Your task to perform on an android device: toggle priority inbox in the gmail app Image 0: 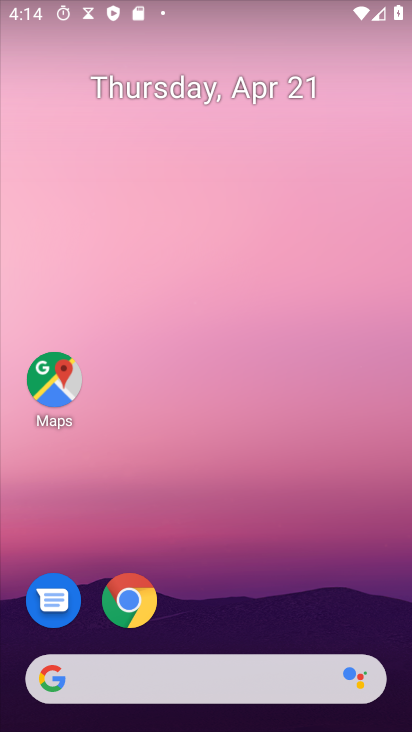
Step 0: drag from (184, 568) to (247, 78)
Your task to perform on an android device: toggle priority inbox in the gmail app Image 1: 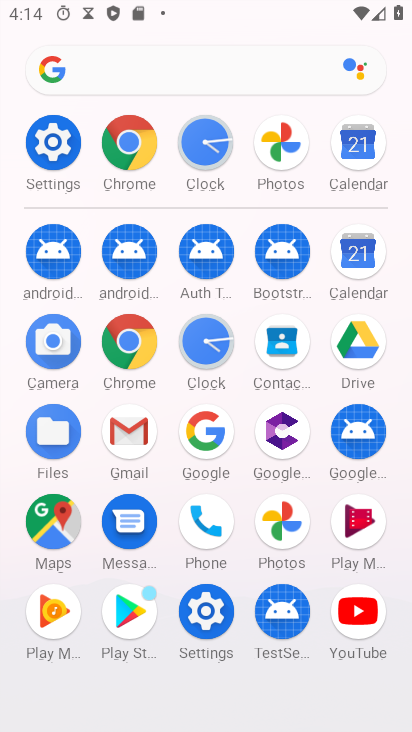
Step 1: click (130, 433)
Your task to perform on an android device: toggle priority inbox in the gmail app Image 2: 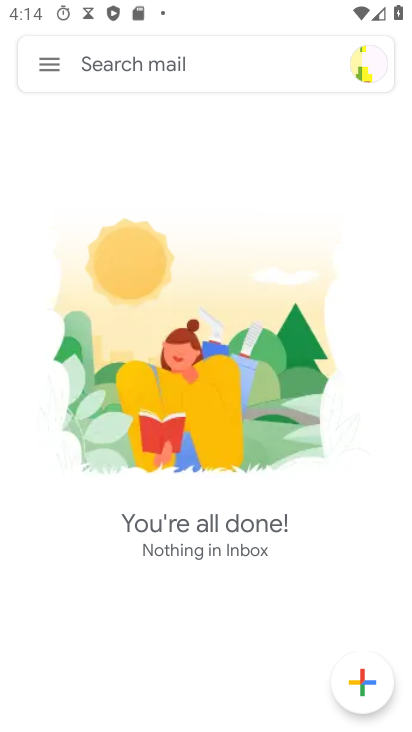
Step 2: click (49, 65)
Your task to perform on an android device: toggle priority inbox in the gmail app Image 3: 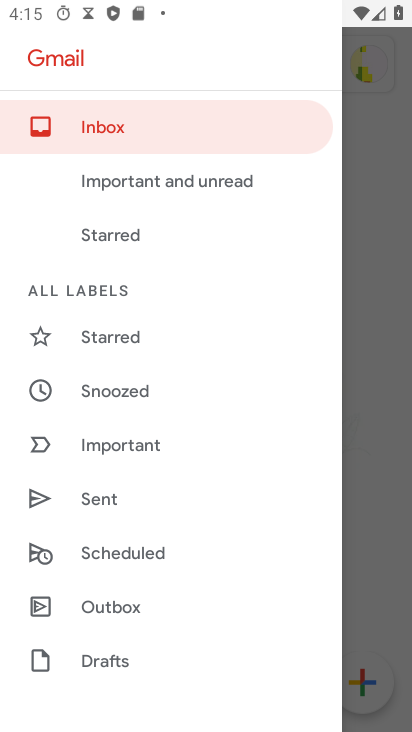
Step 3: drag from (151, 492) to (184, 343)
Your task to perform on an android device: toggle priority inbox in the gmail app Image 4: 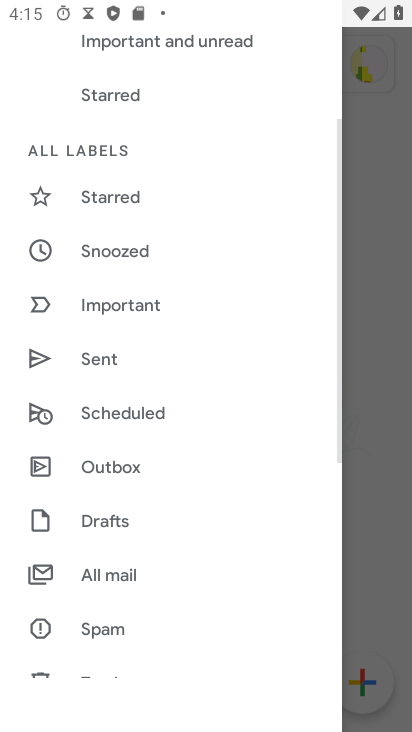
Step 4: drag from (155, 501) to (192, 363)
Your task to perform on an android device: toggle priority inbox in the gmail app Image 5: 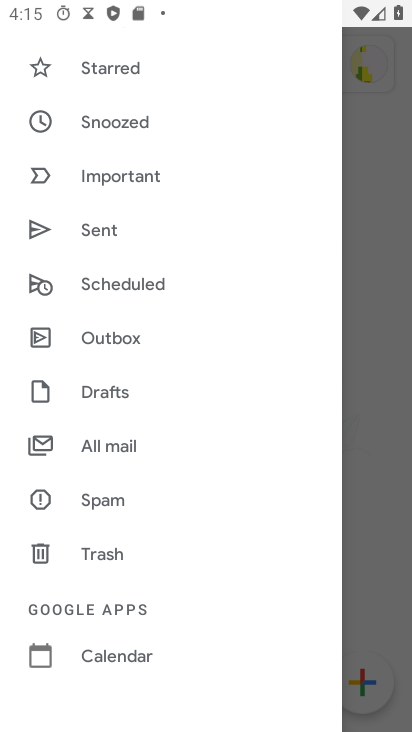
Step 5: drag from (161, 572) to (195, 442)
Your task to perform on an android device: toggle priority inbox in the gmail app Image 6: 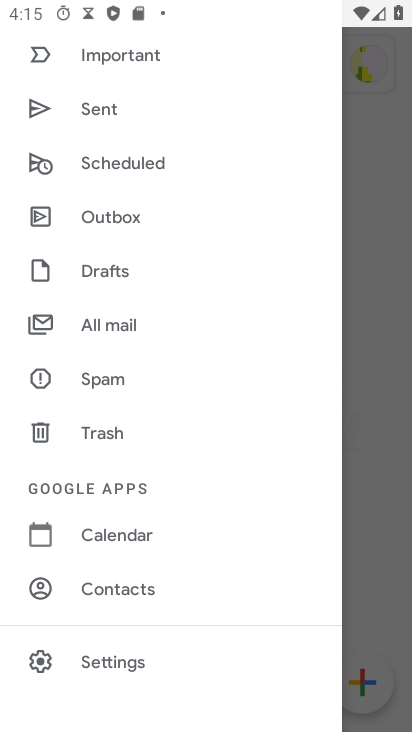
Step 6: click (115, 659)
Your task to perform on an android device: toggle priority inbox in the gmail app Image 7: 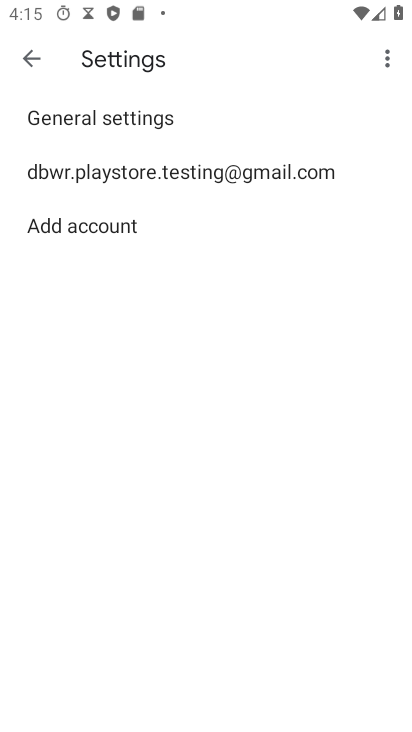
Step 7: click (270, 169)
Your task to perform on an android device: toggle priority inbox in the gmail app Image 8: 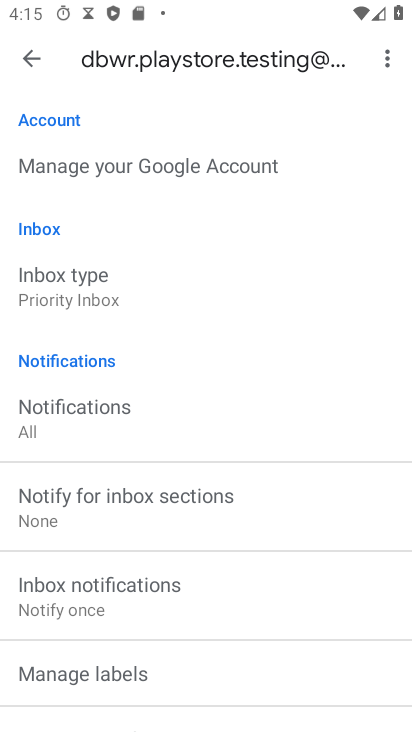
Step 8: click (96, 290)
Your task to perform on an android device: toggle priority inbox in the gmail app Image 9: 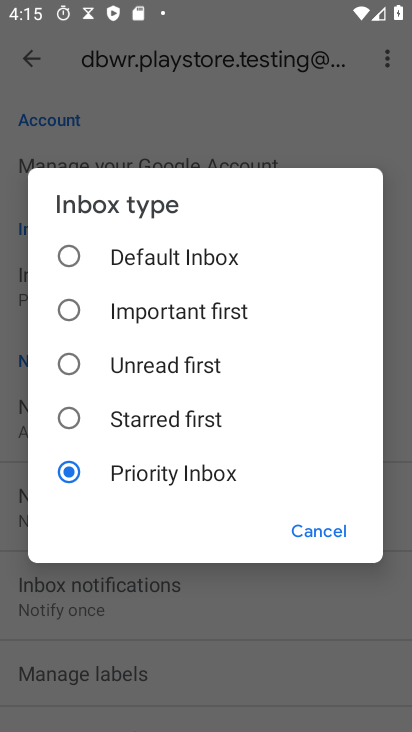
Step 9: click (75, 254)
Your task to perform on an android device: toggle priority inbox in the gmail app Image 10: 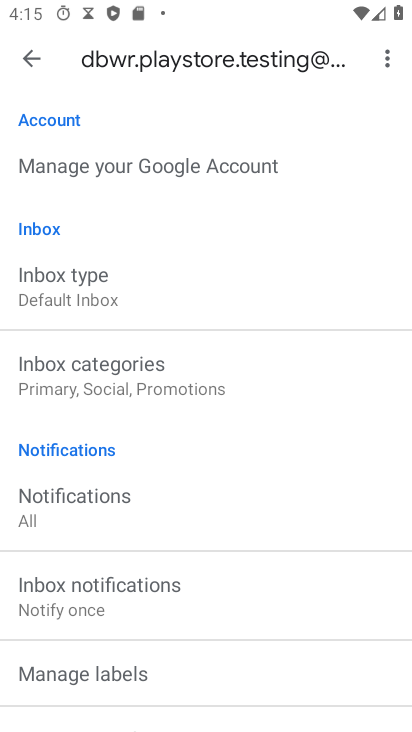
Step 10: task complete